Your task to perform on an android device: Show me the alarms in the clock app Image 0: 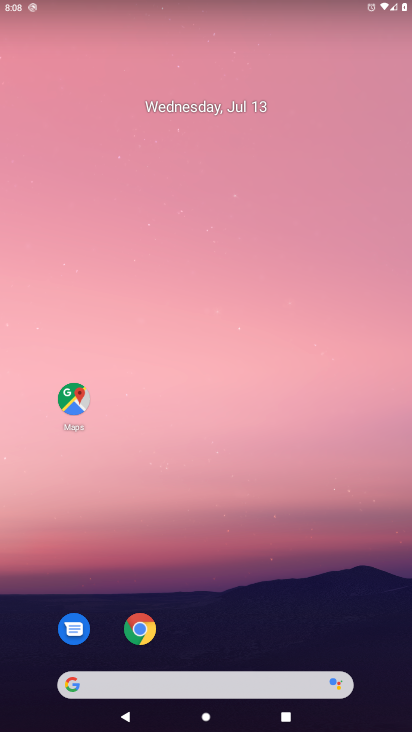
Step 0: drag from (19, 708) to (384, 3)
Your task to perform on an android device: Show me the alarms in the clock app Image 1: 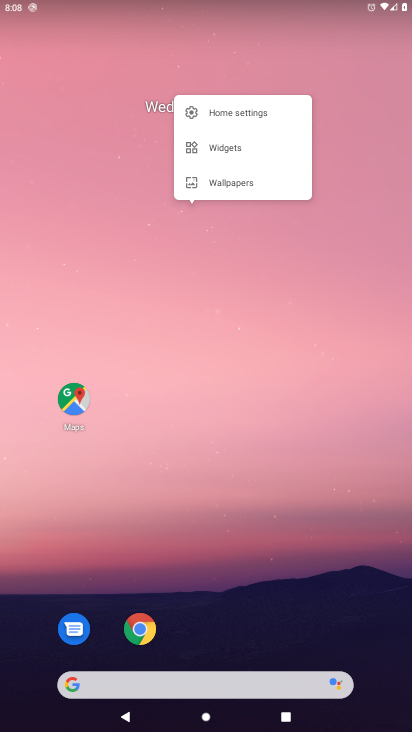
Step 1: drag from (119, 513) to (226, 24)
Your task to perform on an android device: Show me the alarms in the clock app Image 2: 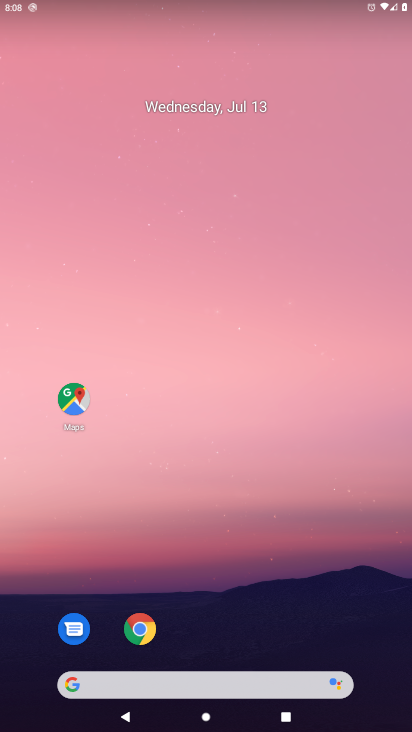
Step 2: drag from (32, 712) to (186, 170)
Your task to perform on an android device: Show me the alarms in the clock app Image 3: 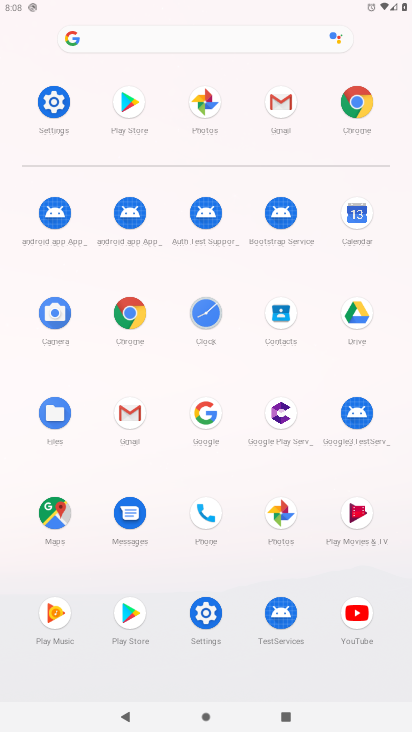
Step 3: click (203, 319)
Your task to perform on an android device: Show me the alarms in the clock app Image 4: 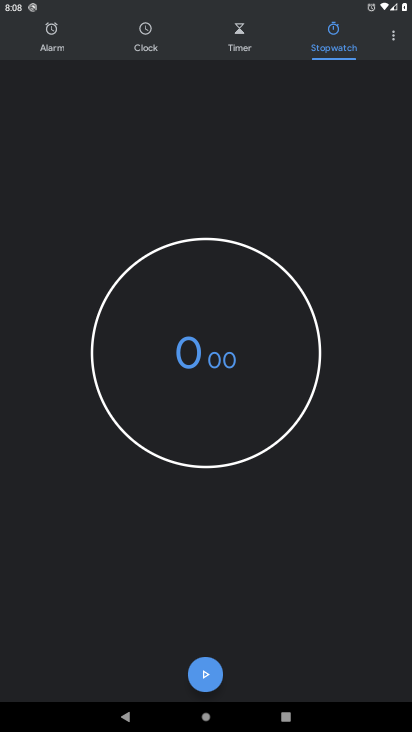
Step 4: click (48, 36)
Your task to perform on an android device: Show me the alarms in the clock app Image 5: 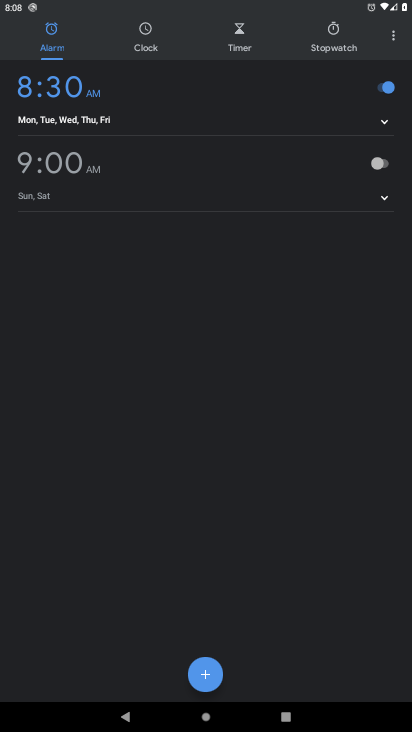
Step 5: task complete